Your task to perform on an android device: star an email in the gmail app Image 0: 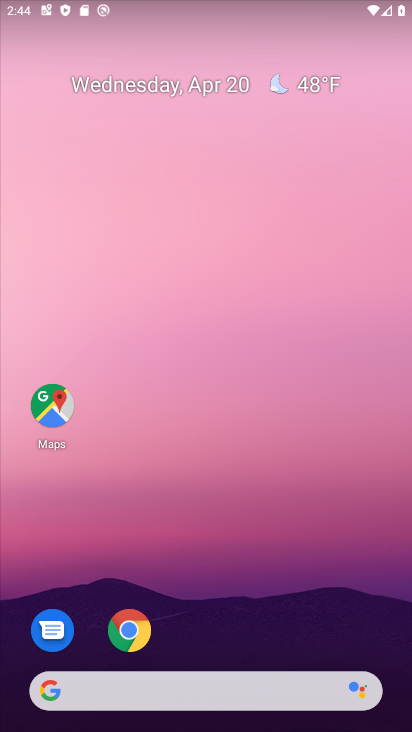
Step 0: drag from (250, 720) to (156, 149)
Your task to perform on an android device: star an email in the gmail app Image 1: 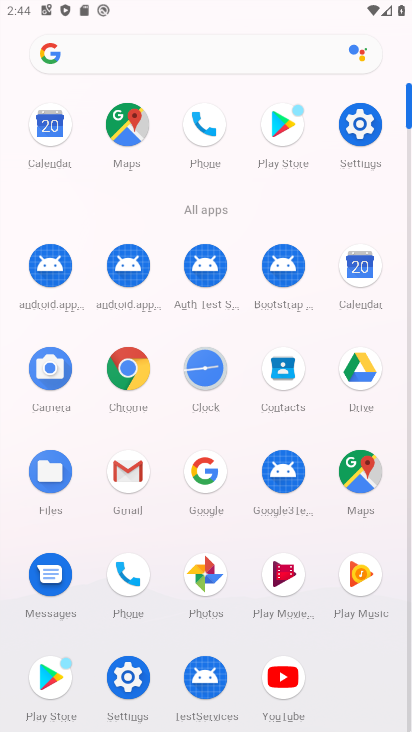
Step 1: click (132, 483)
Your task to perform on an android device: star an email in the gmail app Image 2: 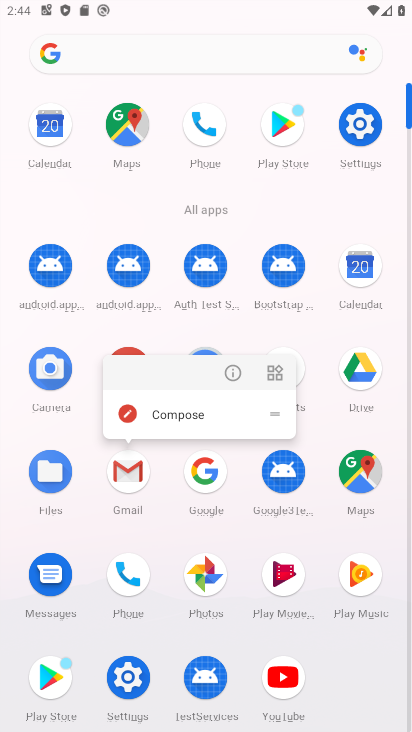
Step 2: click (131, 483)
Your task to perform on an android device: star an email in the gmail app Image 3: 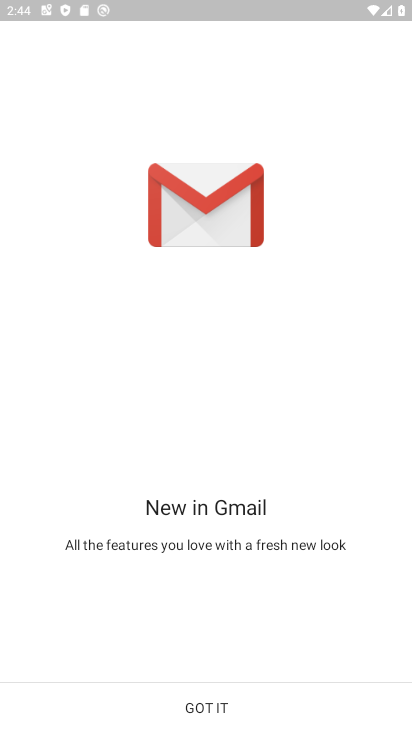
Step 3: click (234, 701)
Your task to perform on an android device: star an email in the gmail app Image 4: 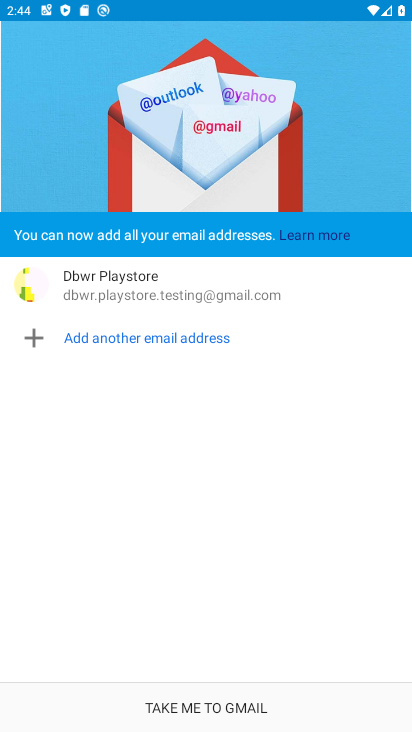
Step 4: click (234, 701)
Your task to perform on an android device: star an email in the gmail app Image 5: 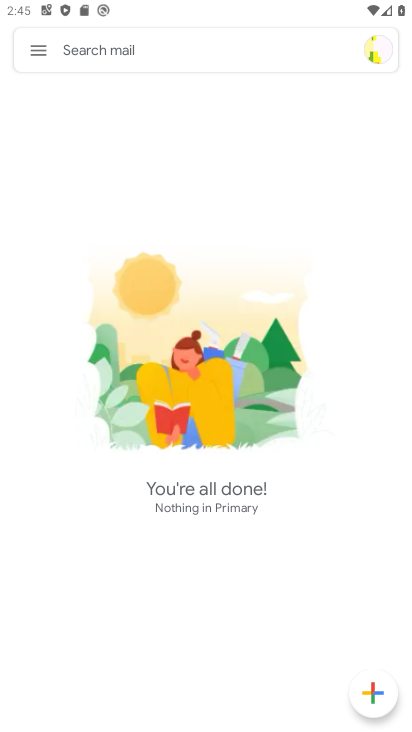
Step 5: click (39, 44)
Your task to perform on an android device: star an email in the gmail app Image 6: 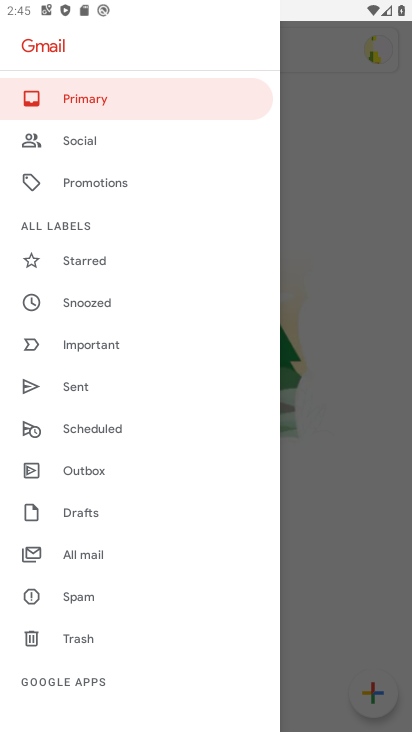
Step 6: click (108, 562)
Your task to perform on an android device: star an email in the gmail app Image 7: 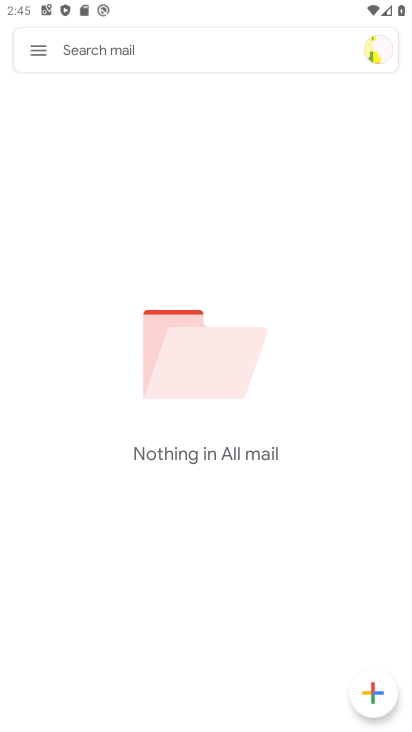
Step 7: task complete